Your task to perform on an android device: uninstall "Airtel Thanks" Image 0: 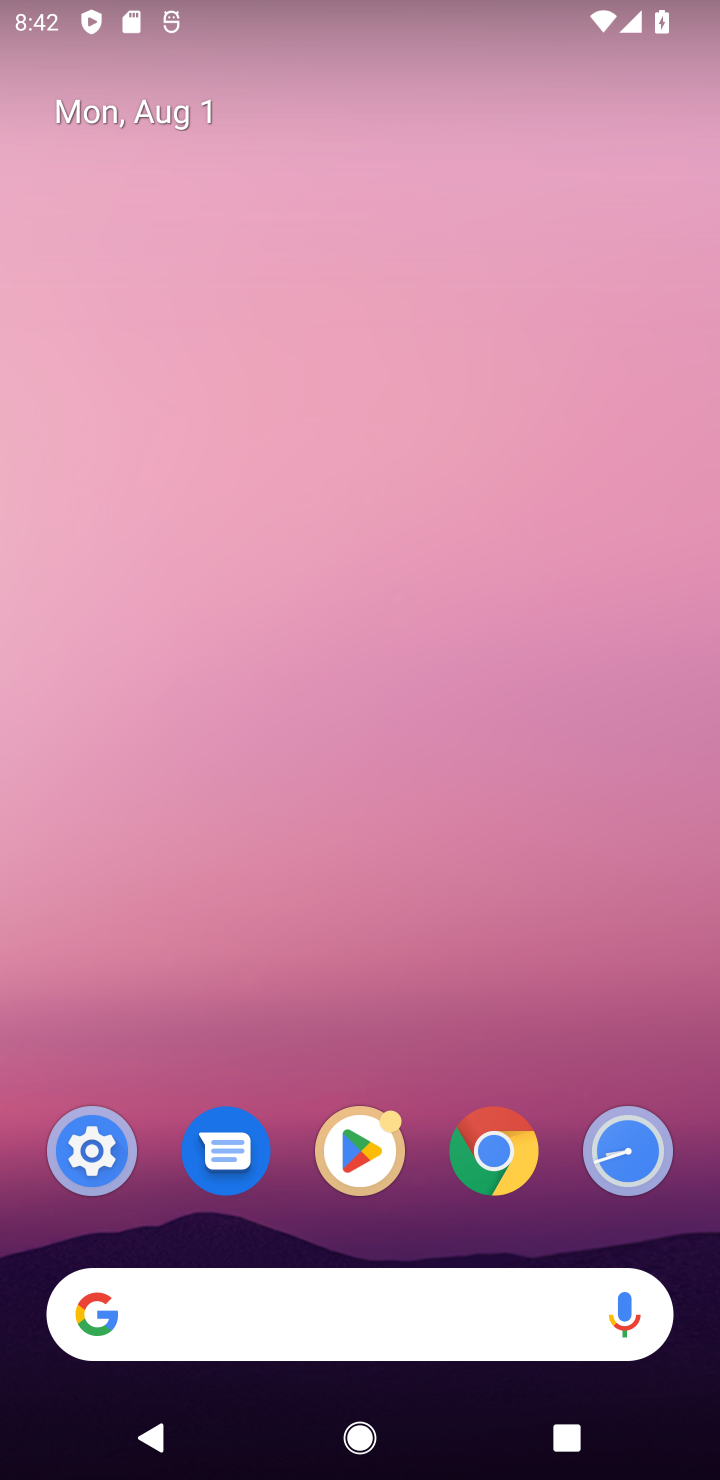
Step 0: click (342, 1152)
Your task to perform on an android device: uninstall "Airtel Thanks" Image 1: 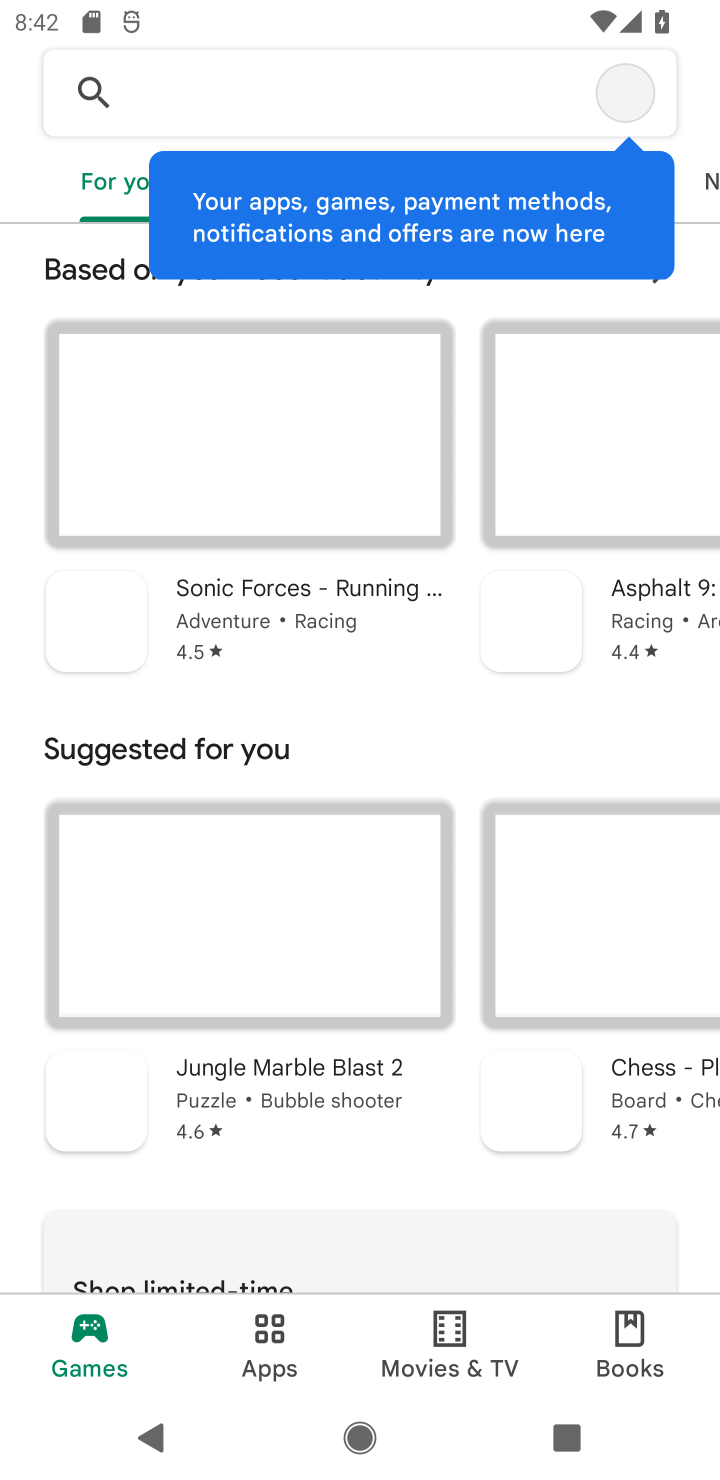
Step 1: click (103, 92)
Your task to perform on an android device: uninstall "Airtel Thanks" Image 2: 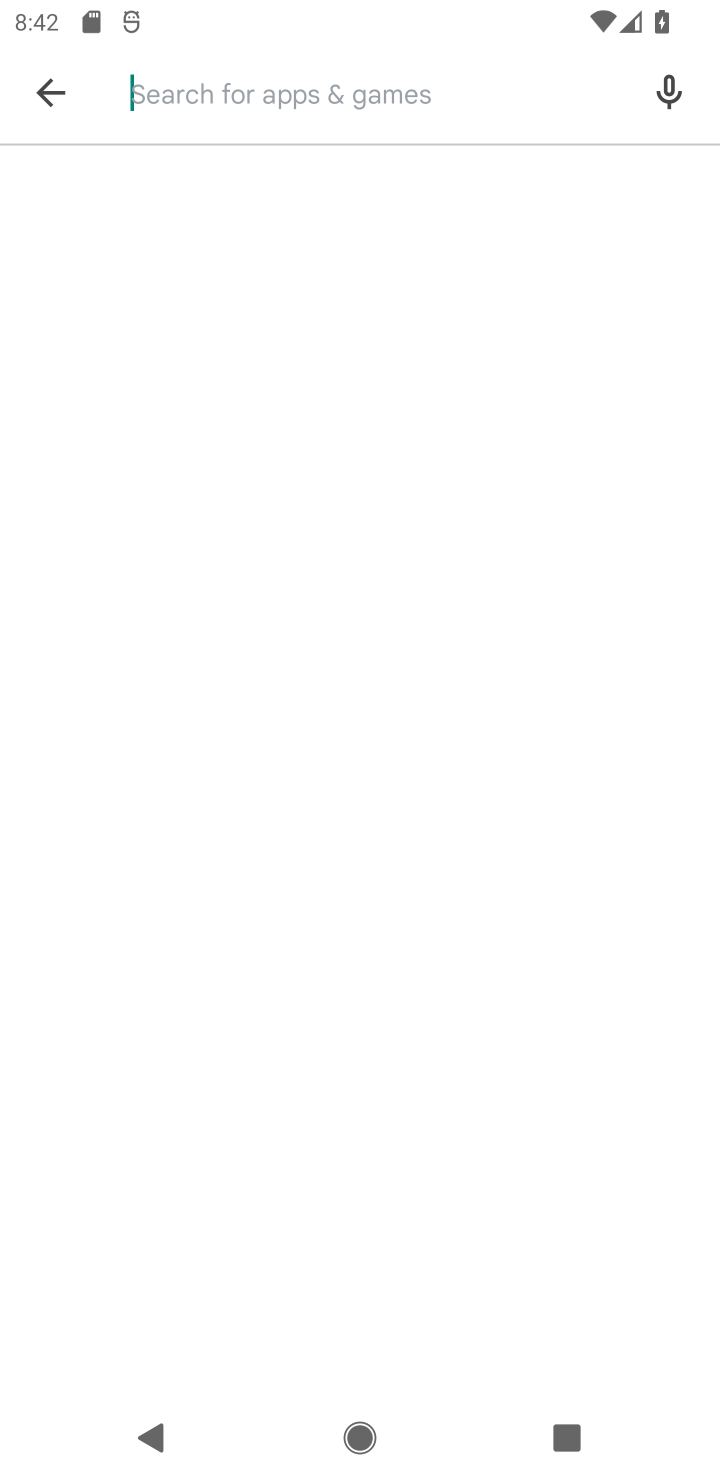
Step 2: click (188, 90)
Your task to perform on an android device: uninstall "Airtel Thanks" Image 3: 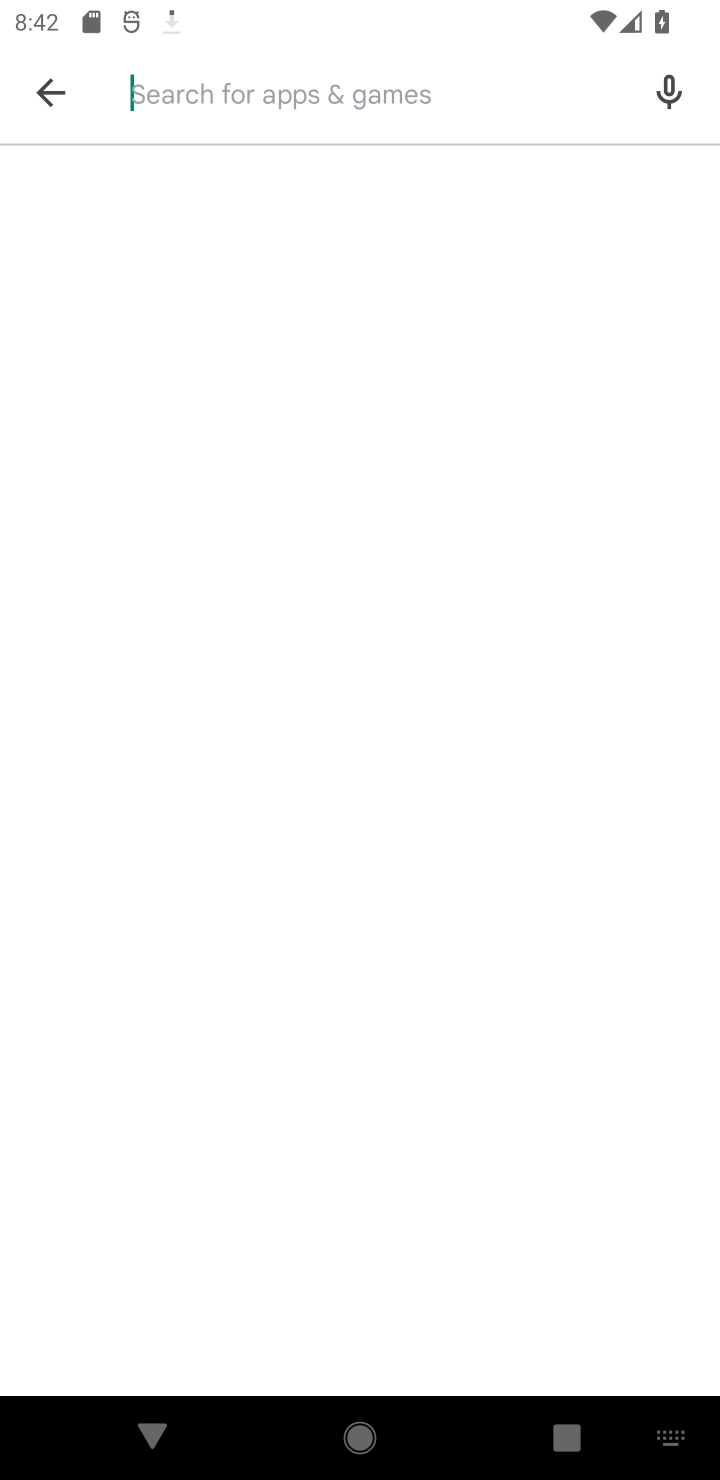
Step 3: type "Airtel Thanks"
Your task to perform on an android device: uninstall "Airtel Thanks" Image 4: 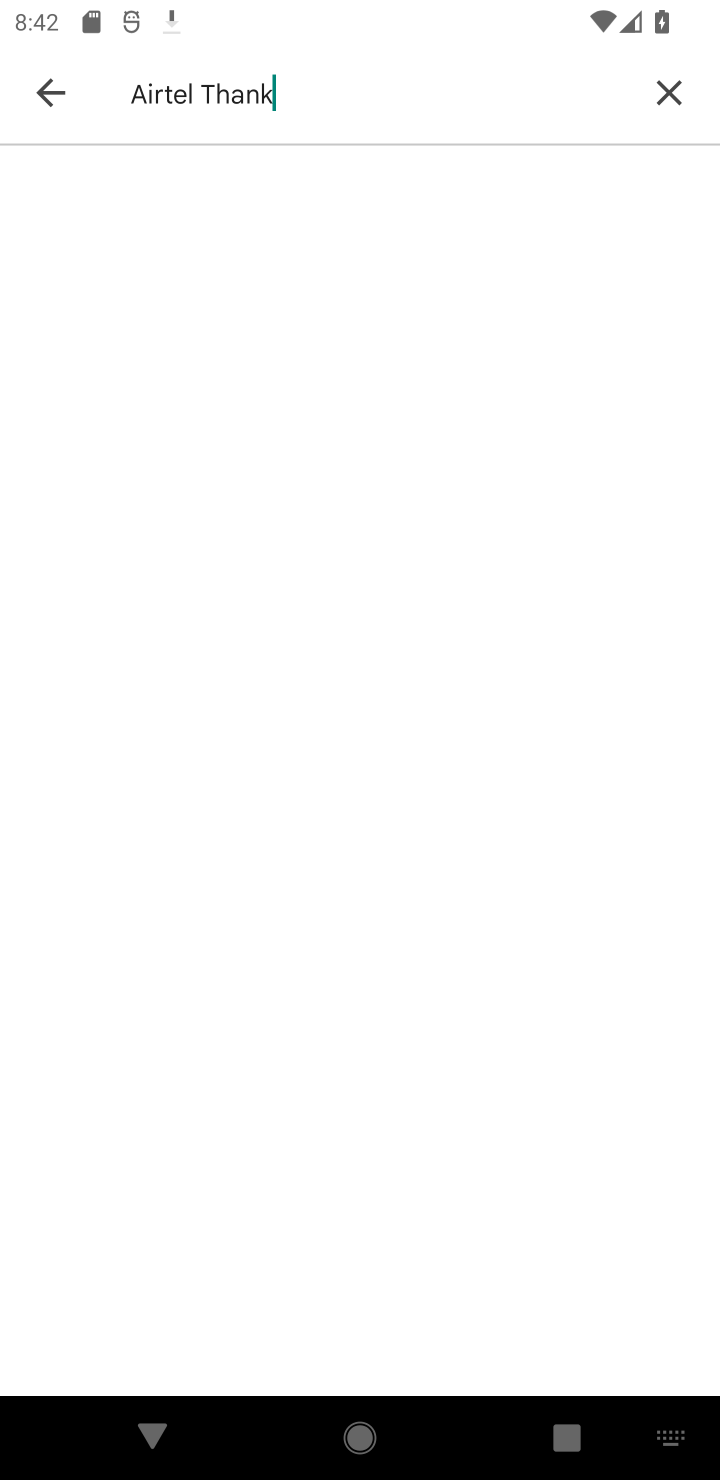
Step 4: type ""
Your task to perform on an android device: uninstall "Airtel Thanks" Image 5: 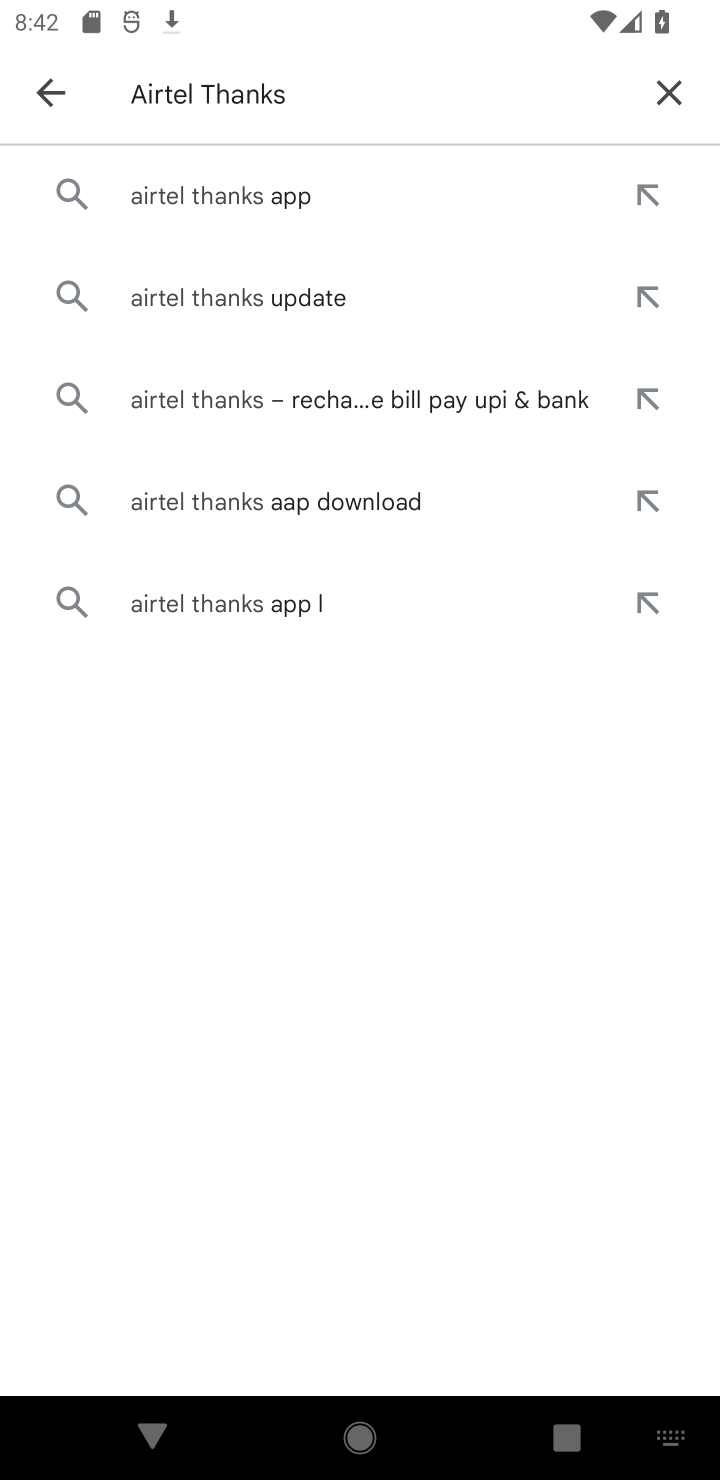
Step 5: click (337, 205)
Your task to perform on an android device: uninstall "Airtel Thanks" Image 6: 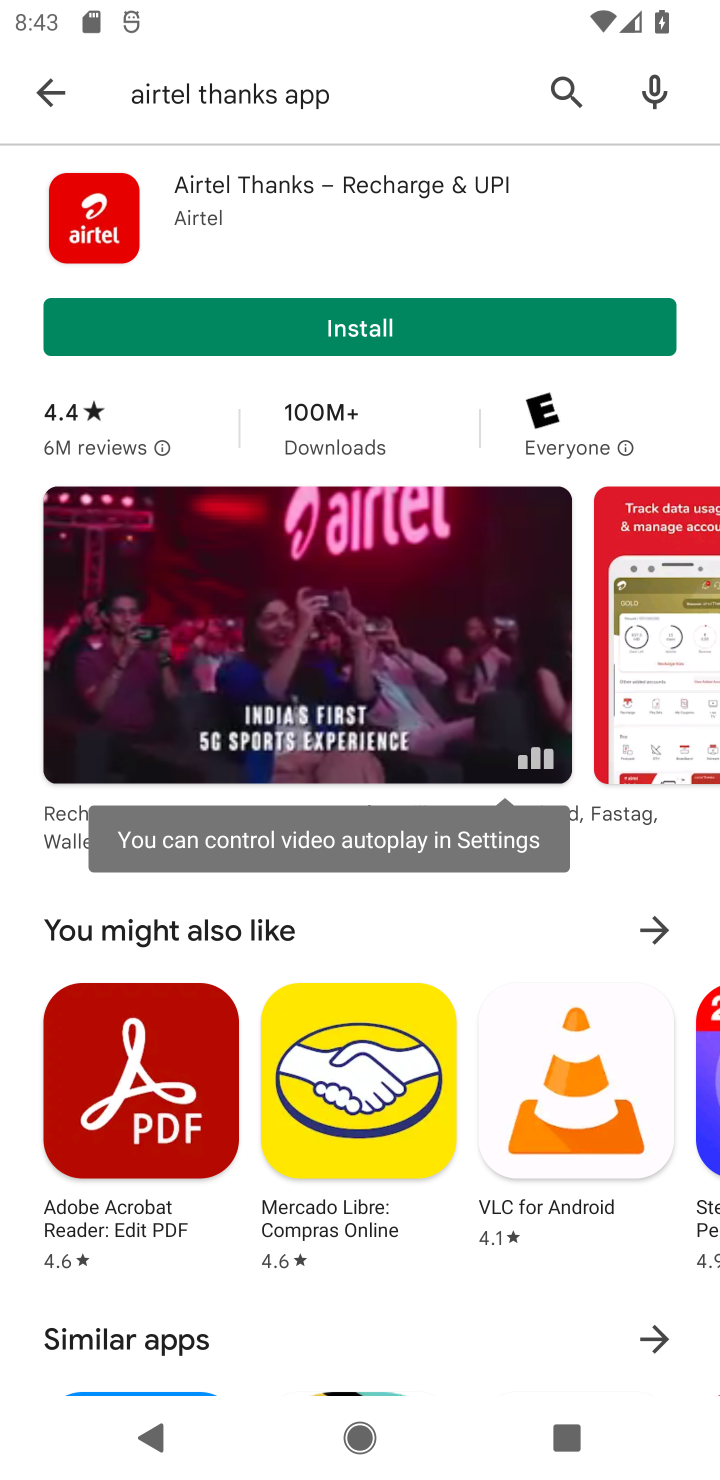
Step 6: task complete